Your task to perform on an android device: open a bookmark in the chrome app Image 0: 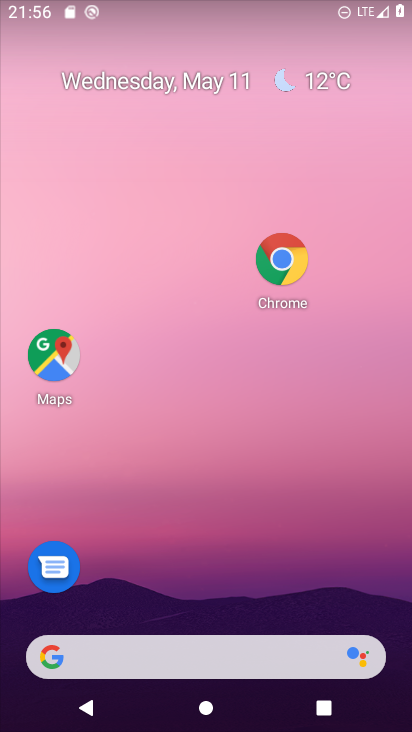
Step 0: click (278, 266)
Your task to perform on an android device: open a bookmark in the chrome app Image 1: 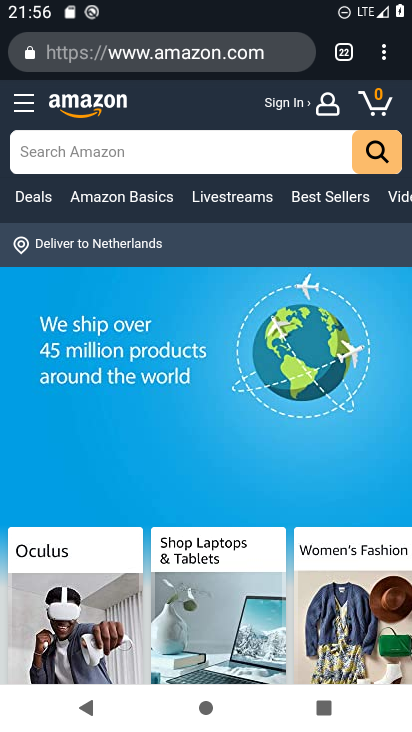
Step 1: task complete